Your task to perform on an android device: delete the emails in spam in the gmail app Image 0: 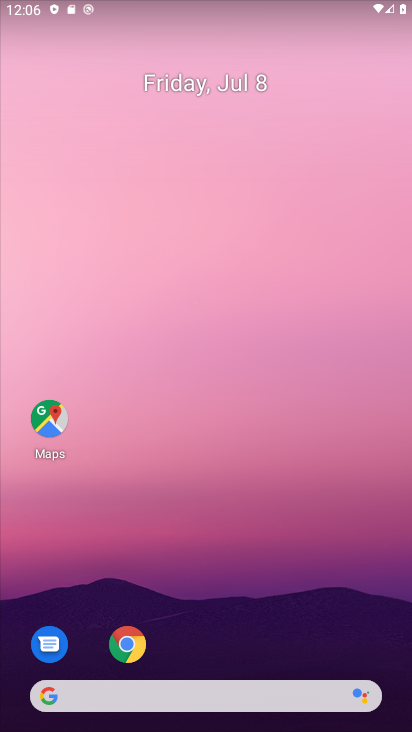
Step 0: drag from (202, 698) to (142, 35)
Your task to perform on an android device: delete the emails in spam in the gmail app Image 1: 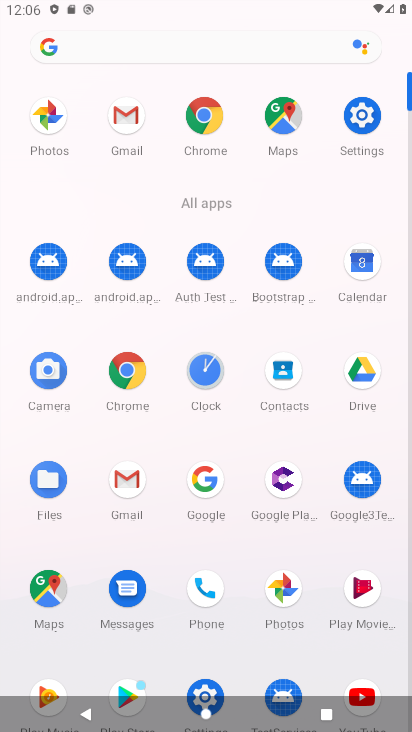
Step 1: click (119, 110)
Your task to perform on an android device: delete the emails in spam in the gmail app Image 2: 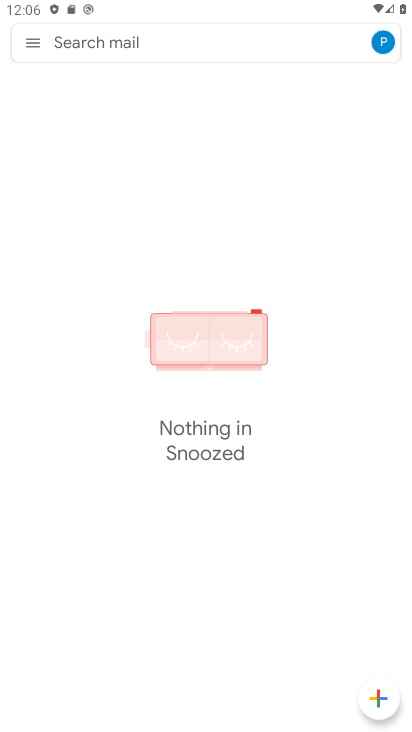
Step 2: click (33, 50)
Your task to perform on an android device: delete the emails in spam in the gmail app Image 3: 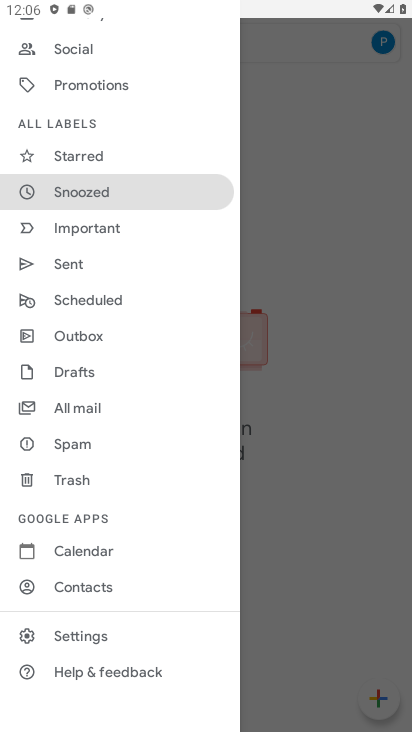
Step 3: drag from (105, 242) to (110, 492)
Your task to perform on an android device: delete the emails in spam in the gmail app Image 4: 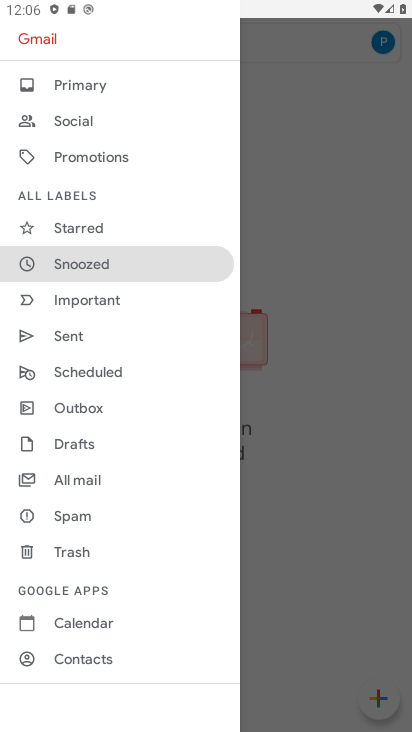
Step 4: click (91, 532)
Your task to perform on an android device: delete the emails in spam in the gmail app Image 5: 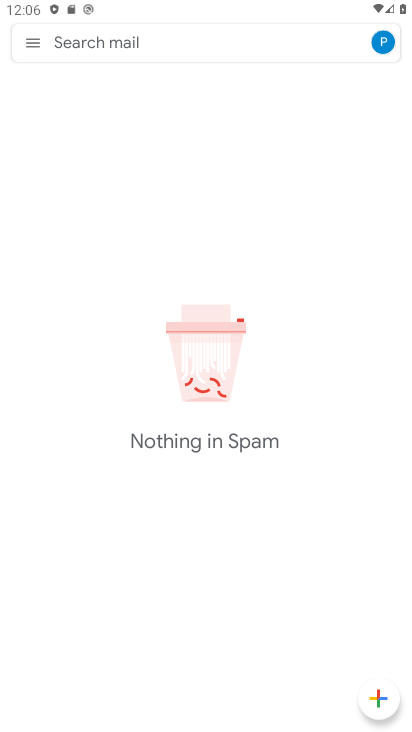
Step 5: task complete